Your task to perform on an android device: Go to sound settings Image 0: 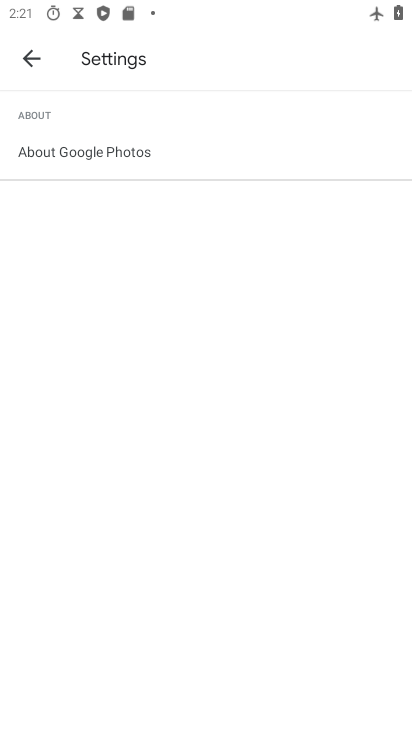
Step 0: press home button
Your task to perform on an android device: Go to sound settings Image 1: 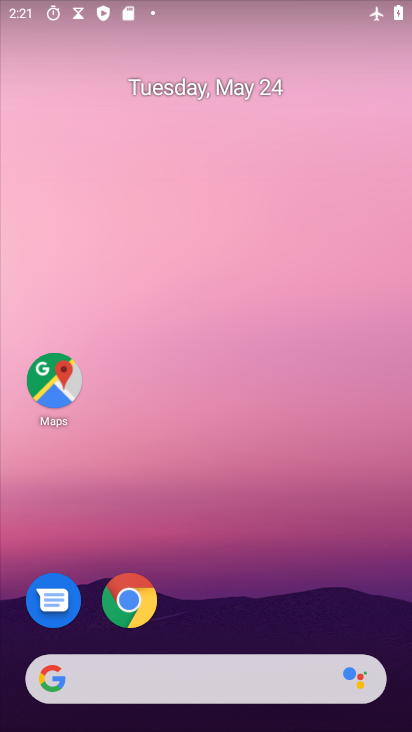
Step 1: drag from (279, 527) to (184, 29)
Your task to perform on an android device: Go to sound settings Image 2: 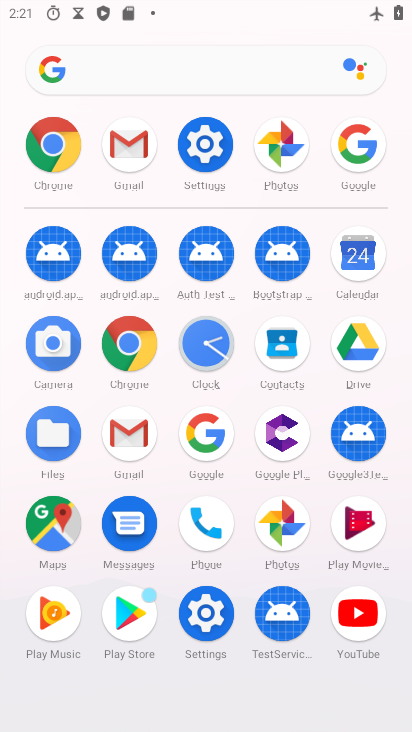
Step 2: click (203, 148)
Your task to perform on an android device: Go to sound settings Image 3: 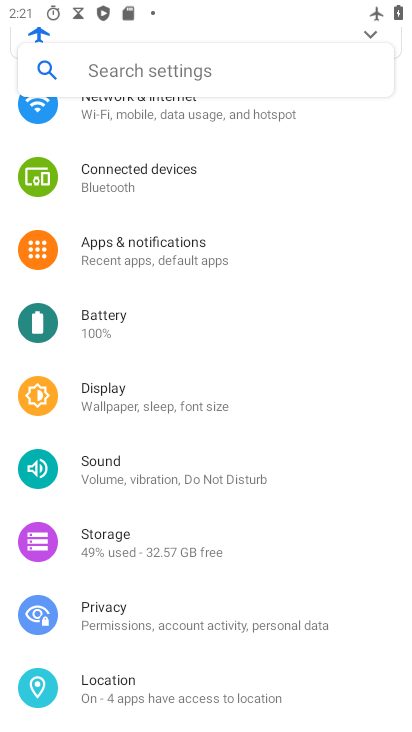
Step 3: click (149, 462)
Your task to perform on an android device: Go to sound settings Image 4: 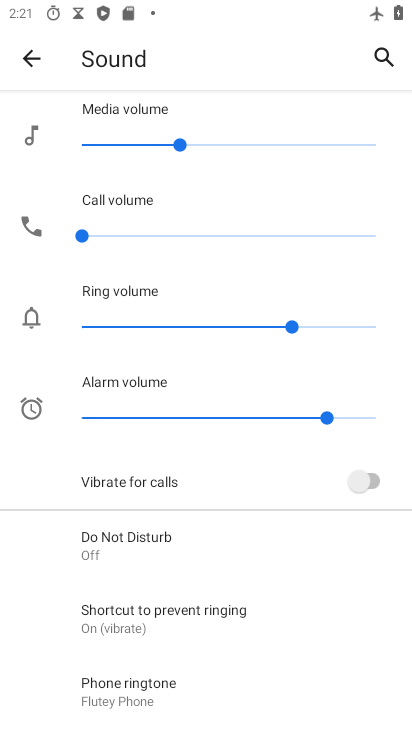
Step 4: task complete